Your task to perform on an android device: turn on airplane mode Image 0: 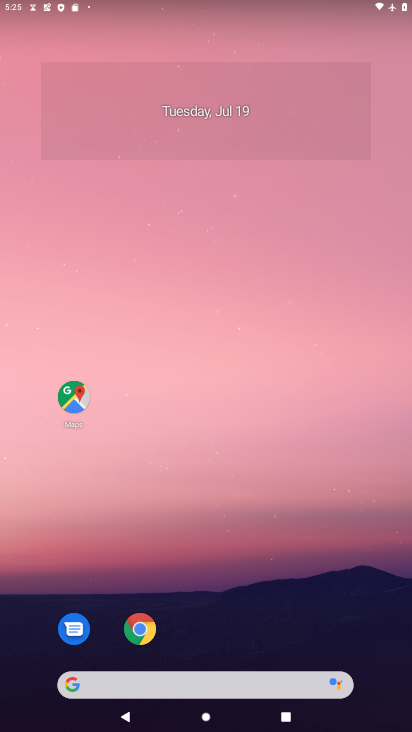
Step 0: press home button
Your task to perform on an android device: turn on airplane mode Image 1: 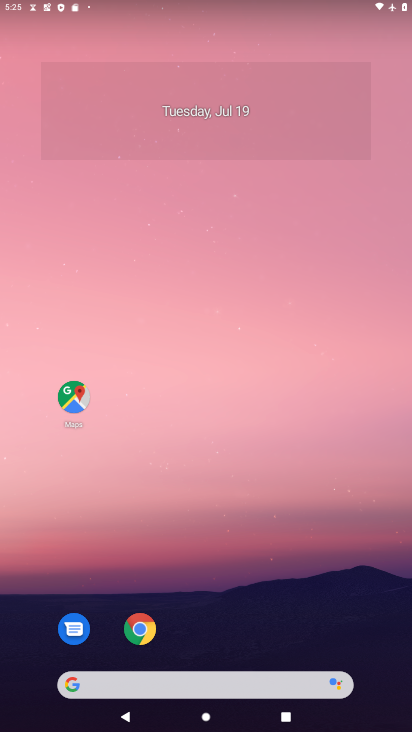
Step 1: task complete